Your task to perform on an android device: Show me recent news Image 0: 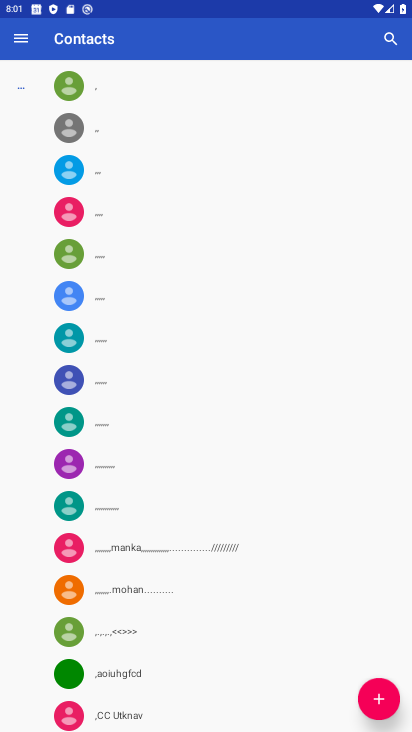
Step 0: press home button
Your task to perform on an android device: Show me recent news Image 1: 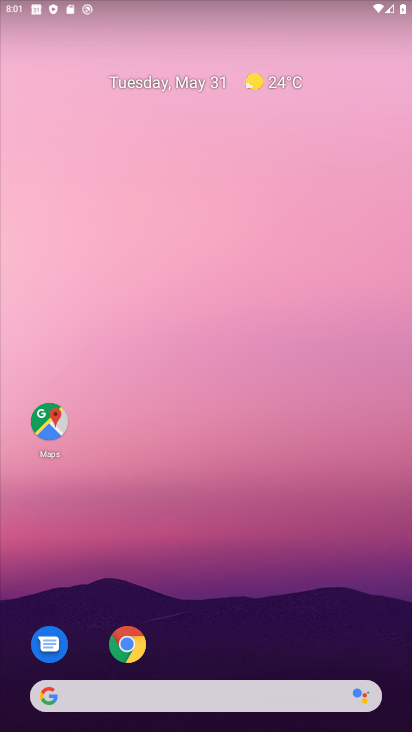
Step 1: click (124, 635)
Your task to perform on an android device: Show me recent news Image 2: 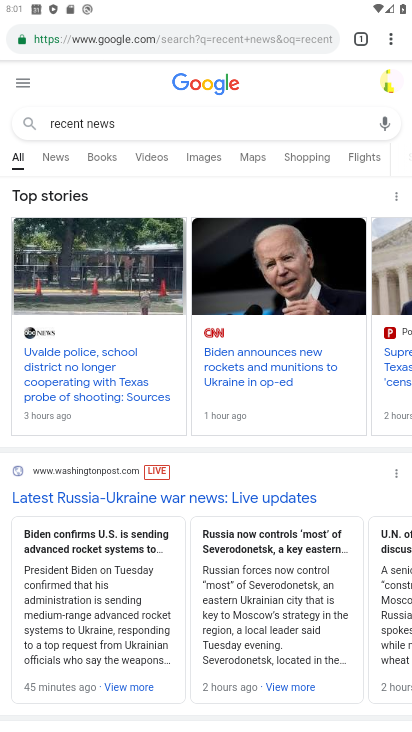
Step 2: click (131, 127)
Your task to perform on an android device: Show me recent news Image 3: 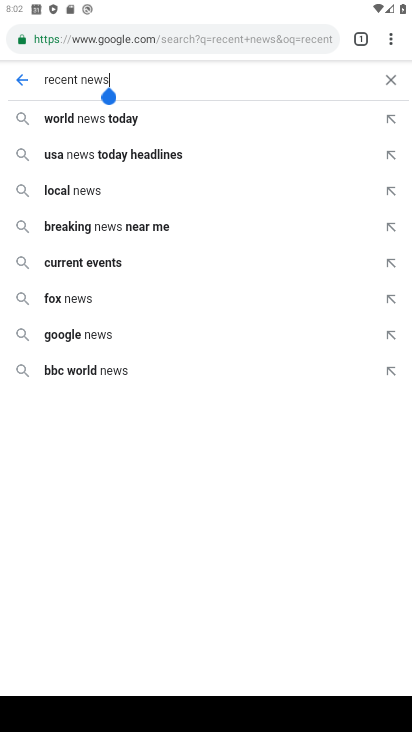
Step 3: type "recent nes"
Your task to perform on an android device: Show me recent news Image 4: 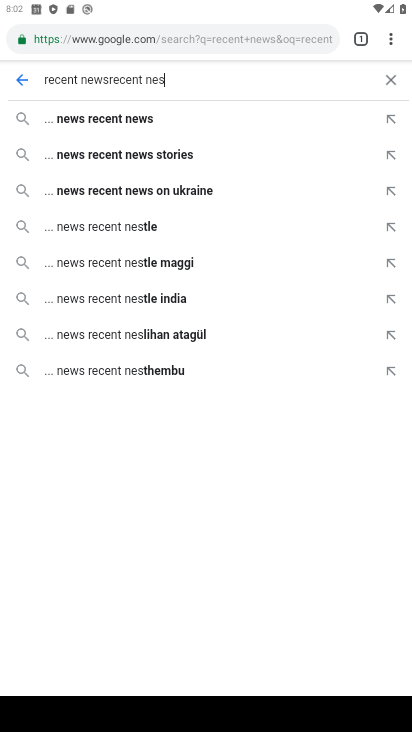
Step 4: click (102, 120)
Your task to perform on an android device: Show me recent news Image 5: 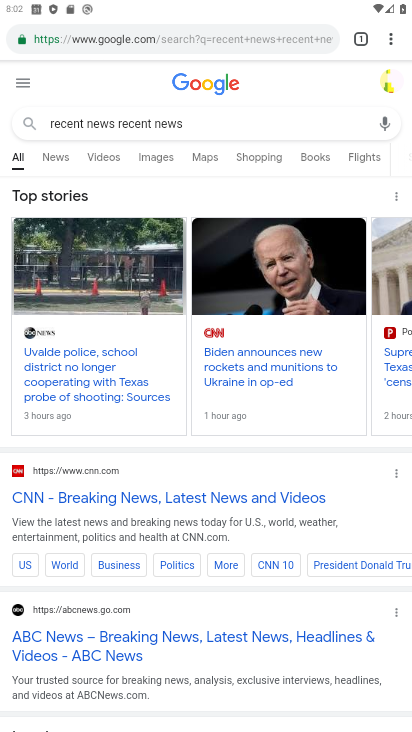
Step 5: task complete